Your task to perform on an android device: delete the emails in spam in the gmail app Image 0: 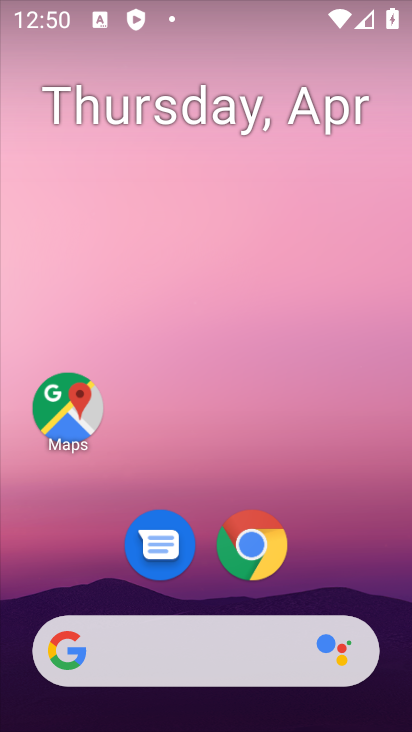
Step 0: click (266, 26)
Your task to perform on an android device: delete the emails in spam in the gmail app Image 1: 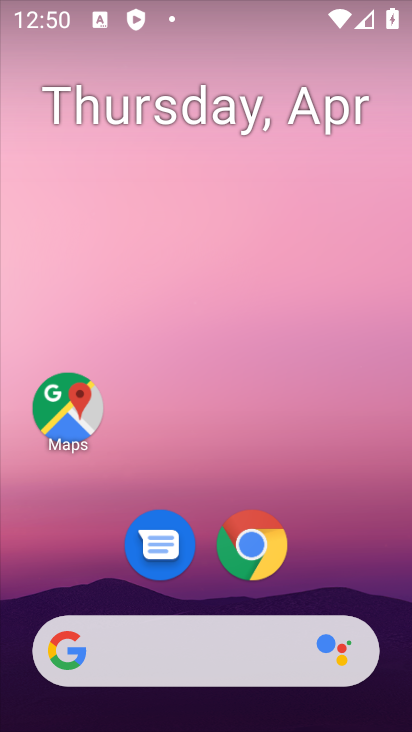
Step 1: drag from (243, 536) to (237, 152)
Your task to perform on an android device: delete the emails in spam in the gmail app Image 2: 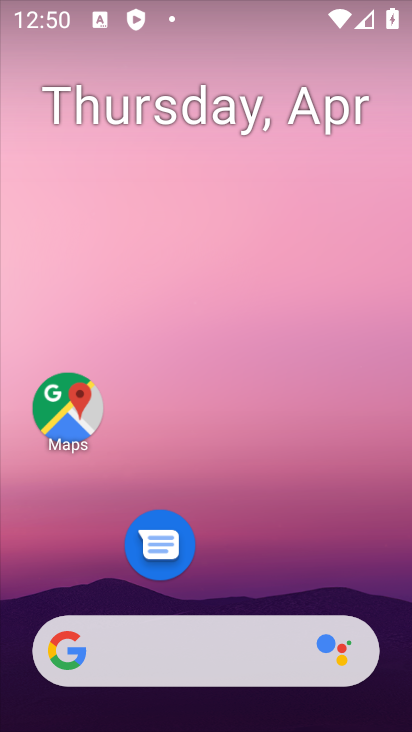
Step 2: drag from (228, 474) to (253, 152)
Your task to perform on an android device: delete the emails in spam in the gmail app Image 3: 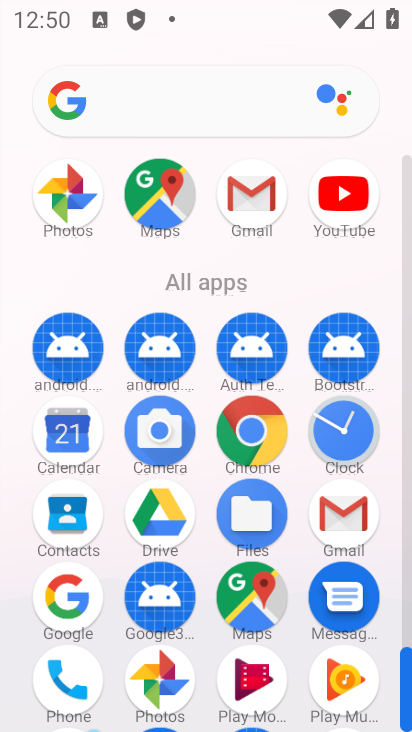
Step 3: click (248, 210)
Your task to perform on an android device: delete the emails in spam in the gmail app Image 4: 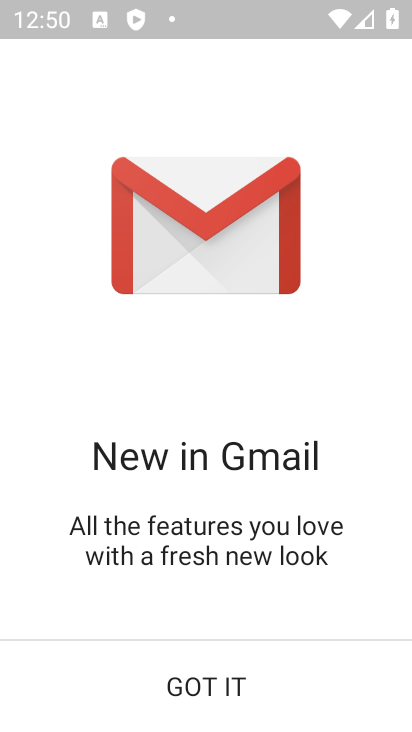
Step 4: click (228, 683)
Your task to perform on an android device: delete the emails in spam in the gmail app Image 5: 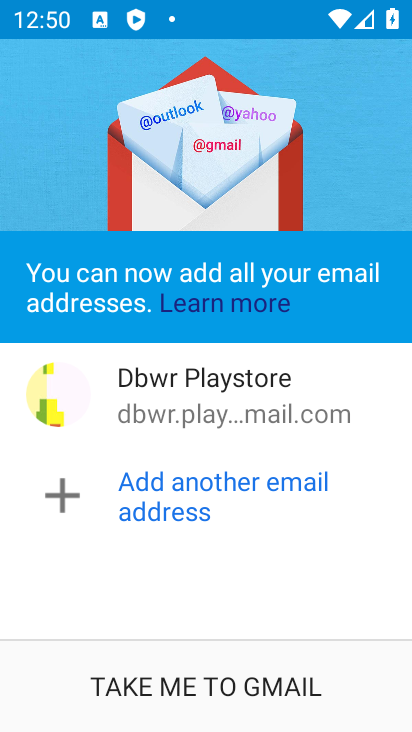
Step 5: click (270, 689)
Your task to perform on an android device: delete the emails in spam in the gmail app Image 6: 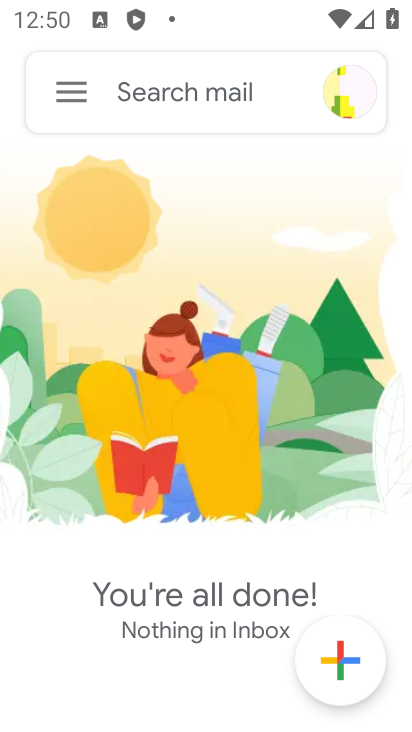
Step 6: click (73, 91)
Your task to perform on an android device: delete the emails in spam in the gmail app Image 7: 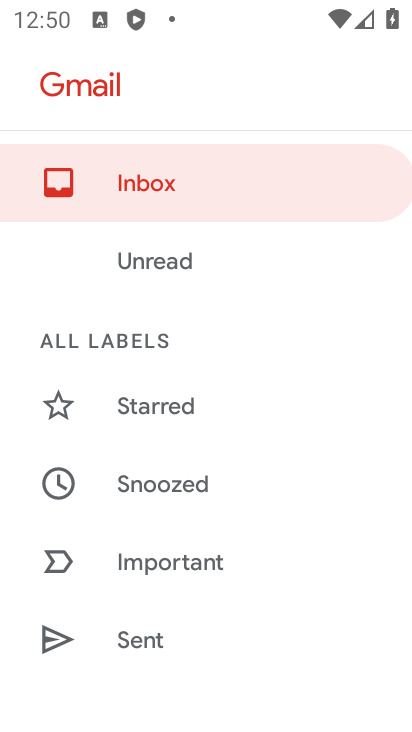
Step 7: drag from (156, 543) to (271, 70)
Your task to perform on an android device: delete the emails in spam in the gmail app Image 8: 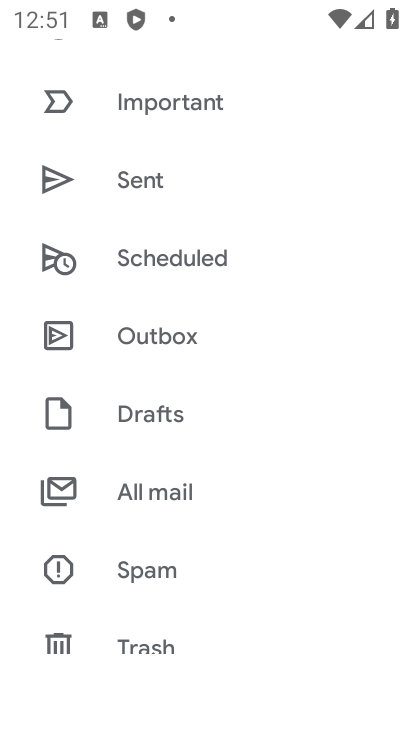
Step 8: click (208, 501)
Your task to perform on an android device: delete the emails in spam in the gmail app Image 9: 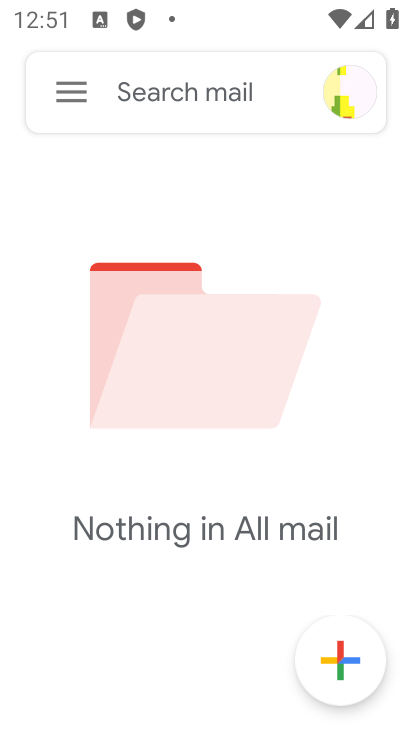
Step 9: task complete